Your task to perform on an android device: find photos in the google photos app Image 0: 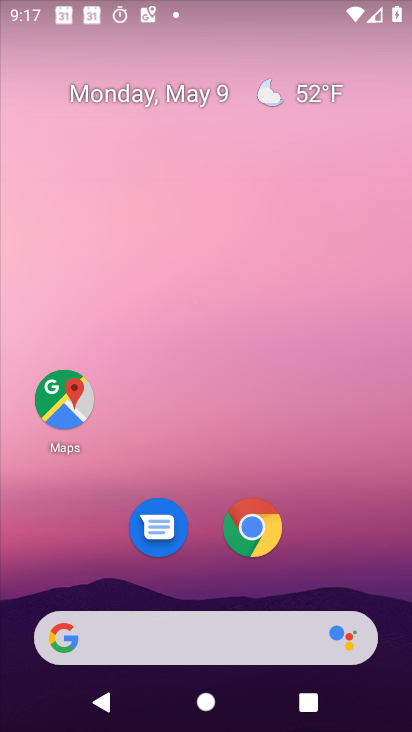
Step 0: drag from (331, 561) to (308, 167)
Your task to perform on an android device: find photos in the google photos app Image 1: 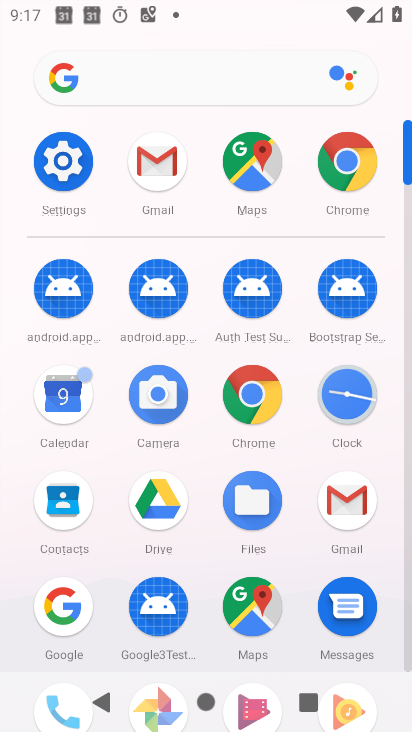
Step 1: drag from (205, 600) to (197, 334)
Your task to perform on an android device: find photos in the google photos app Image 2: 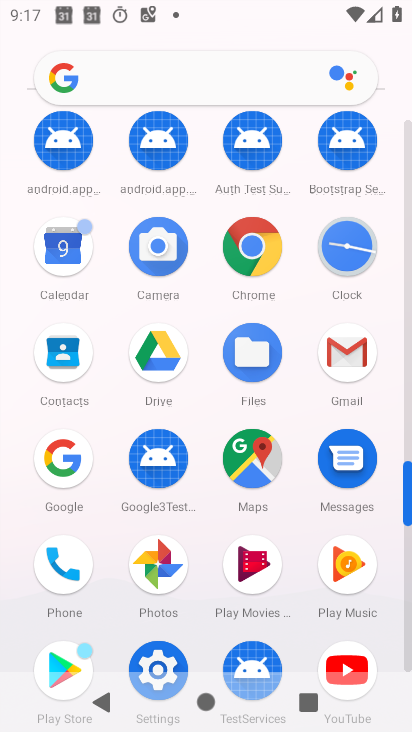
Step 2: click (174, 563)
Your task to perform on an android device: find photos in the google photos app Image 3: 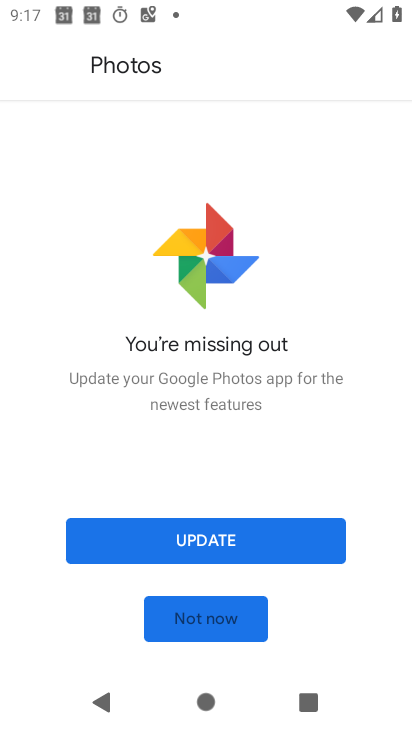
Step 3: click (303, 553)
Your task to perform on an android device: find photos in the google photos app Image 4: 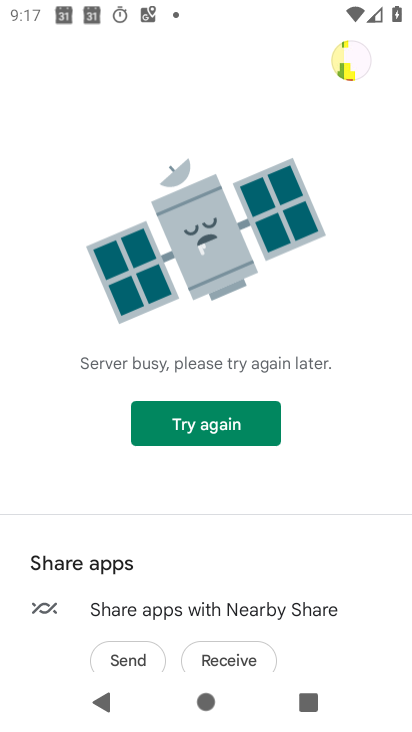
Step 4: task complete